Your task to perform on an android device: Open Chrome and go to settings Image 0: 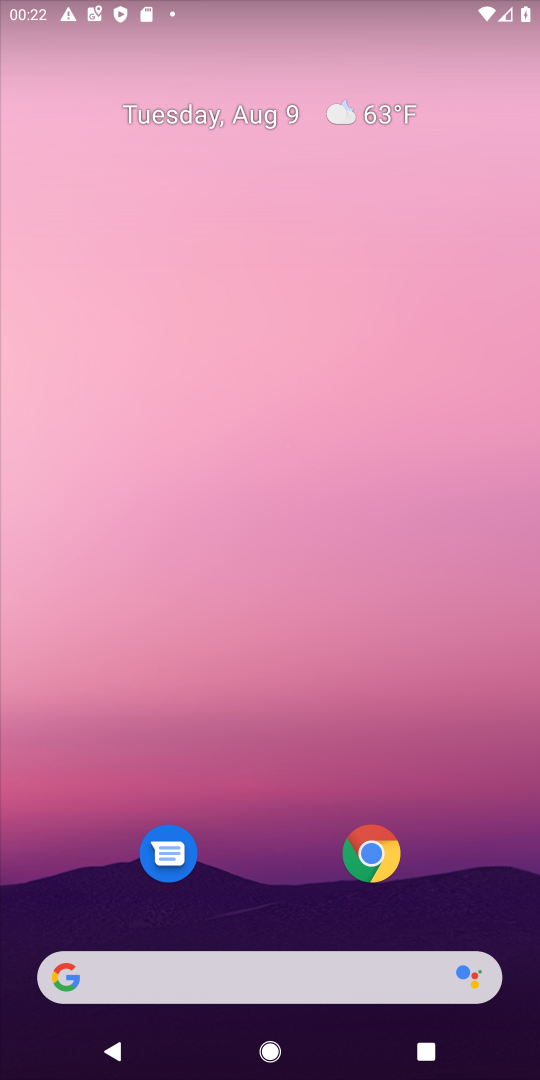
Step 0: click (373, 844)
Your task to perform on an android device: Open Chrome and go to settings Image 1: 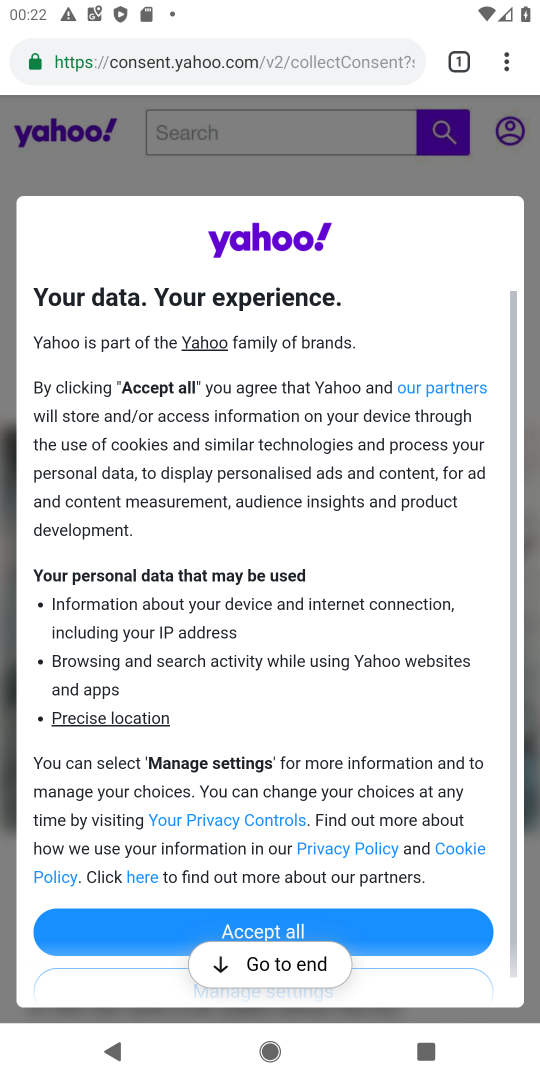
Step 1: click (501, 58)
Your task to perform on an android device: Open Chrome and go to settings Image 2: 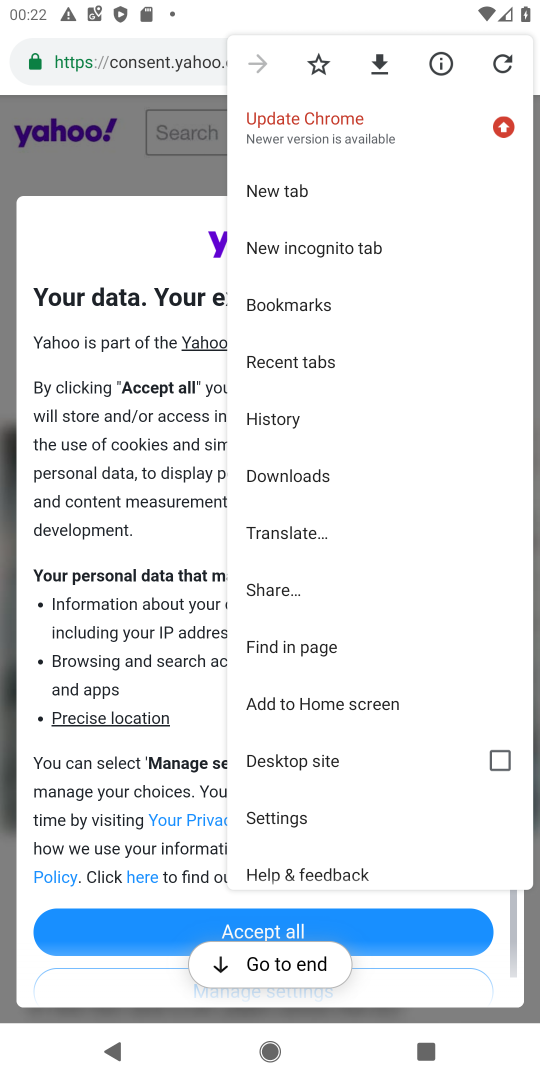
Step 2: click (364, 823)
Your task to perform on an android device: Open Chrome and go to settings Image 3: 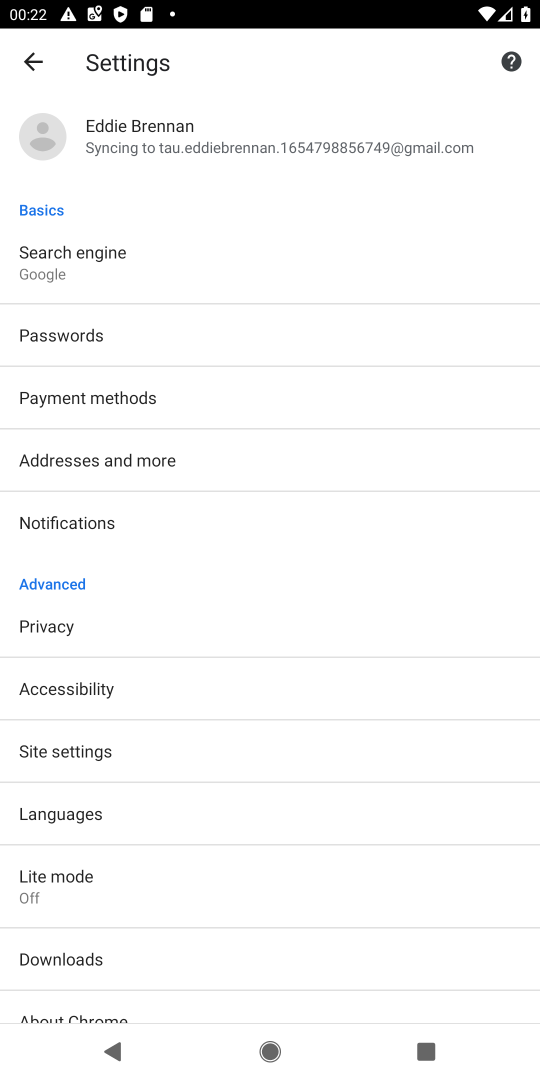
Step 3: task complete